Your task to perform on an android device: turn on javascript in the chrome app Image 0: 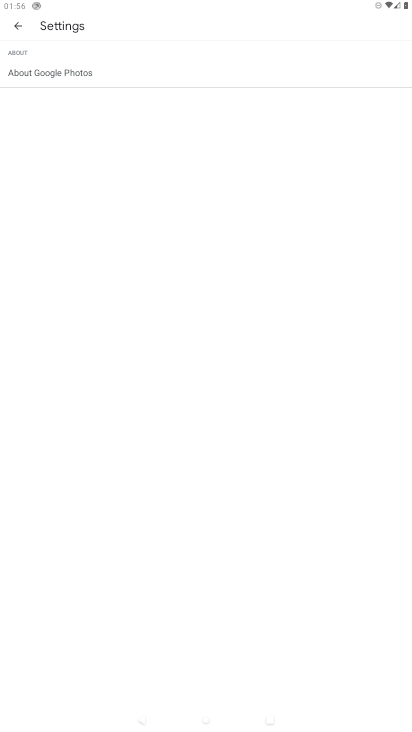
Step 0: press home button
Your task to perform on an android device: turn on javascript in the chrome app Image 1: 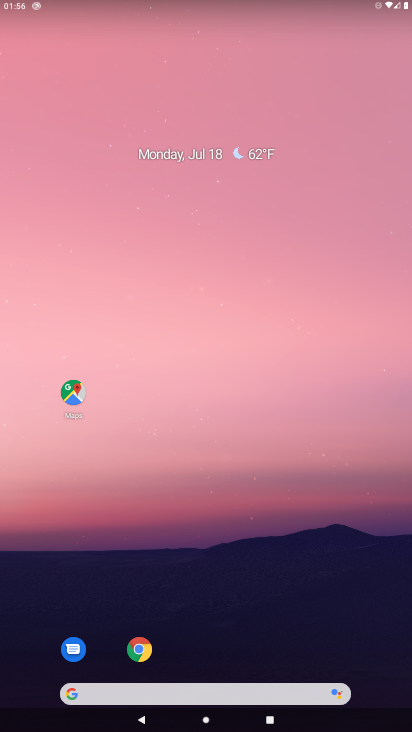
Step 1: click (127, 645)
Your task to perform on an android device: turn on javascript in the chrome app Image 2: 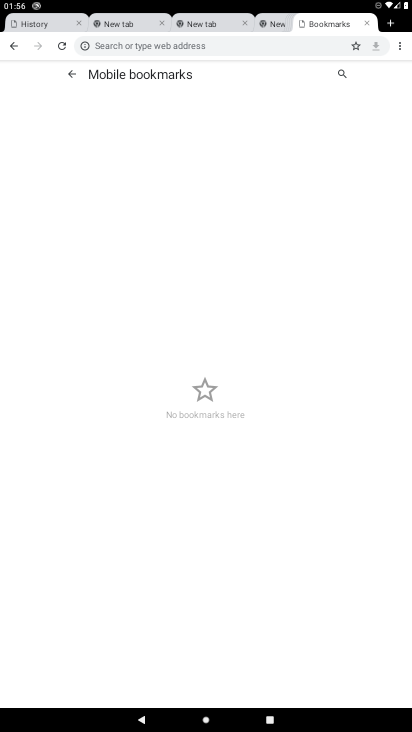
Step 2: click (397, 37)
Your task to perform on an android device: turn on javascript in the chrome app Image 3: 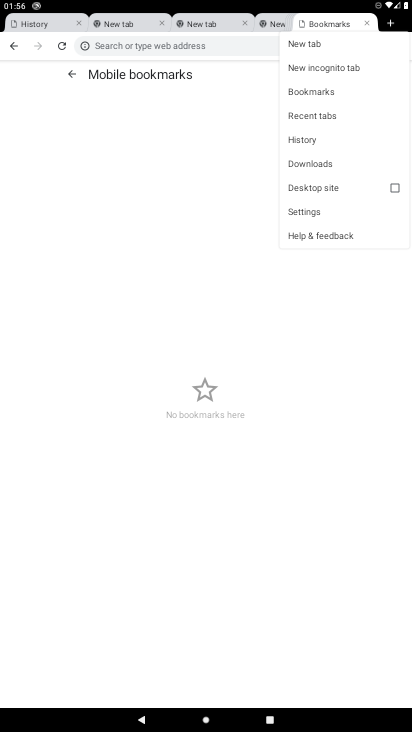
Step 3: click (398, 43)
Your task to perform on an android device: turn on javascript in the chrome app Image 4: 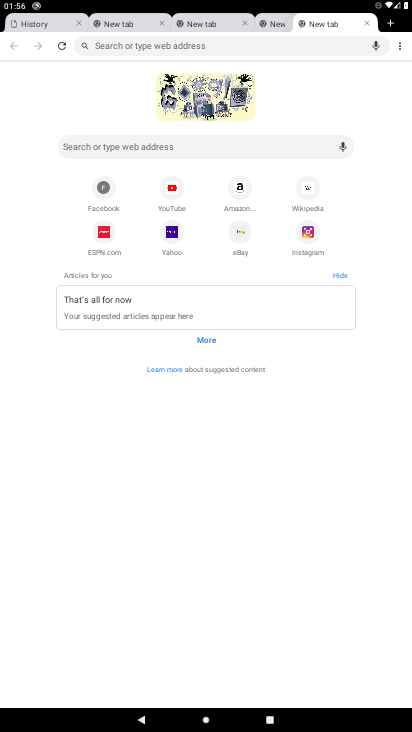
Step 4: click (404, 38)
Your task to perform on an android device: turn on javascript in the chrome app Image 5: 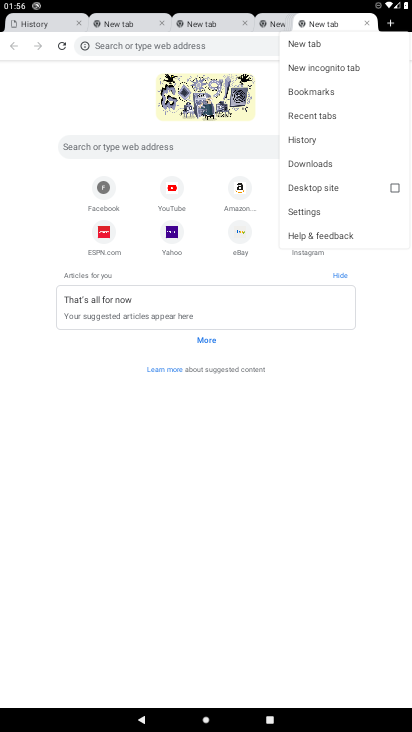
Step 5: click (300, 207)
Your task to perform on an android device: turn on javascript in the chrome app Image 6: 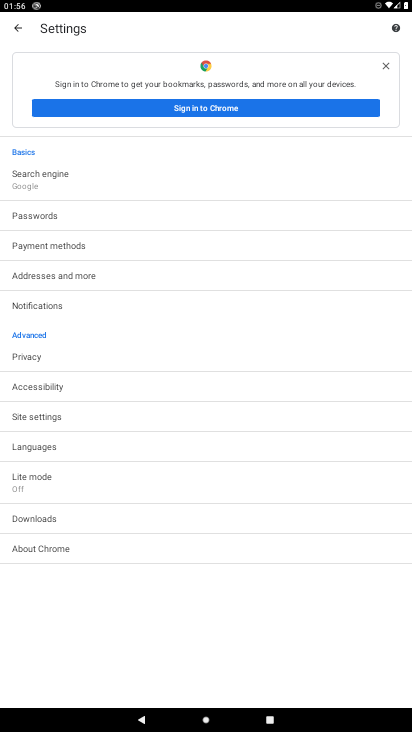
Step 6: click (47, 423)
Your task to perform on an android device: turn on javascript in the chrome app Image 7: 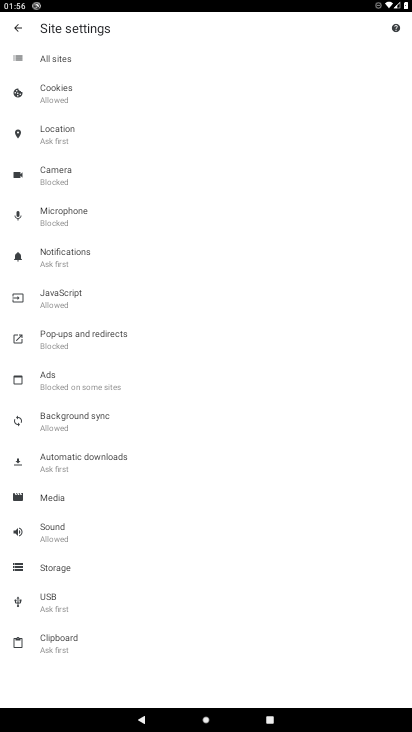
Step 7: click (60, 299)
Your task to perform on an android device: turn on javascript in the chrome app Image 8: 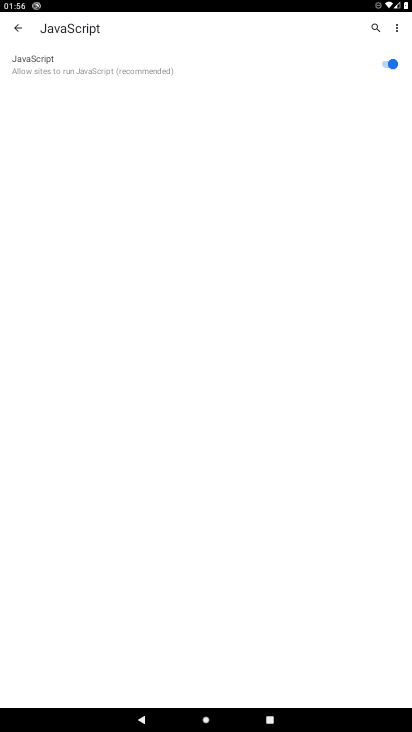
Step 8: task complete